Your task to perform on an android device: Go to Wikipedia Image 0: 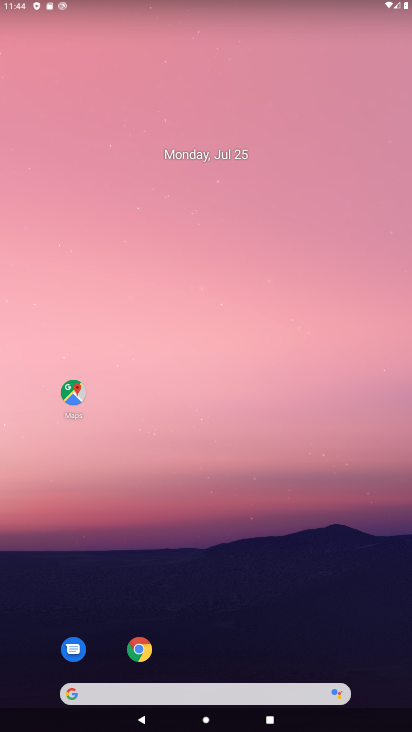
Step 0: drag from (208, 667) to (177, 80)
Your task to perform on an android device: Go to Wikipedia Image 1: 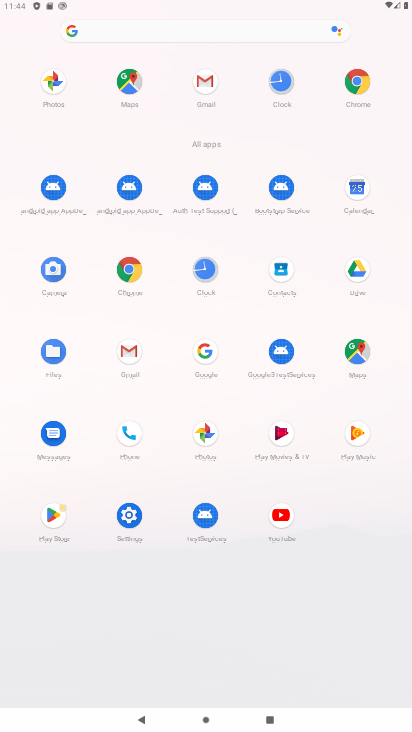
Step 1: click (132, 264)
Your task to perform on an android device: Go to Wikipedia Image 2: 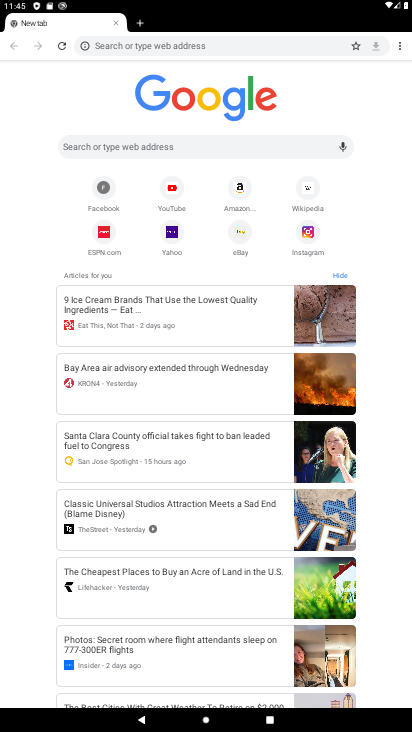
Step 2: click (304, 188)
Your task to perform on an android device: Go to Wikipedia Image 3: 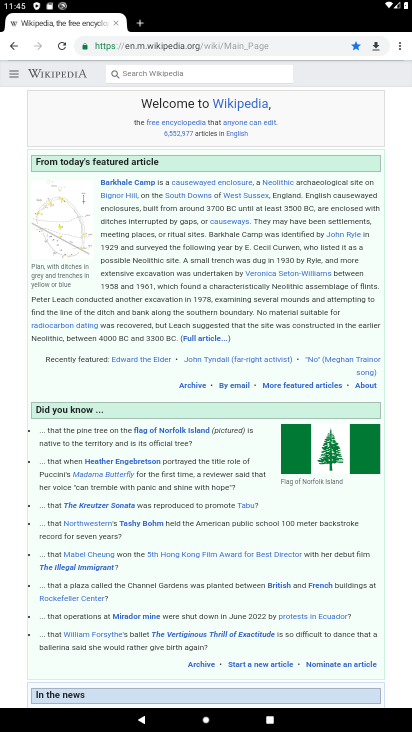
Step 3: task complete